Your task to perform on an android device: turn off smart reply in the gmail app Image 0: 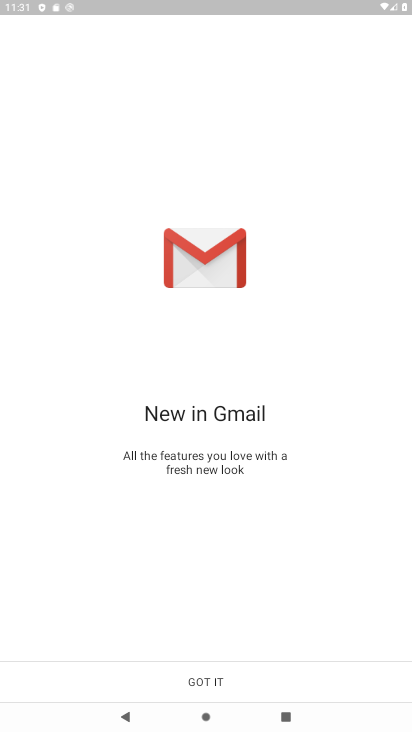
Step 0: click (210, 672)
Your task to perform on an android device: turn off smart reply in the gmail app Image 1: 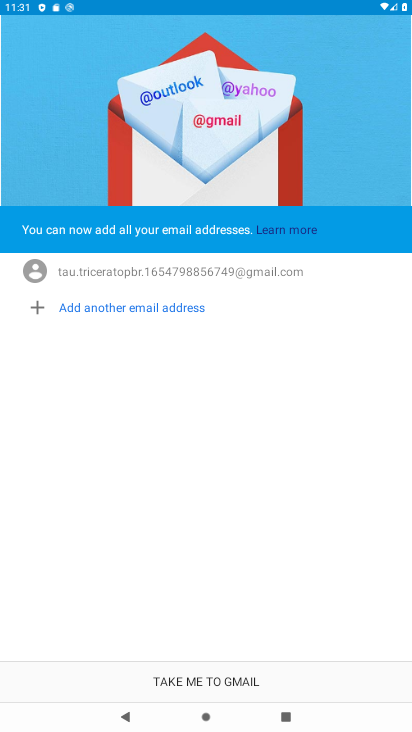
Step 1: click (210, 670)
Your task to perform on an android device: turn off smart reply in the gmail app Image 2: 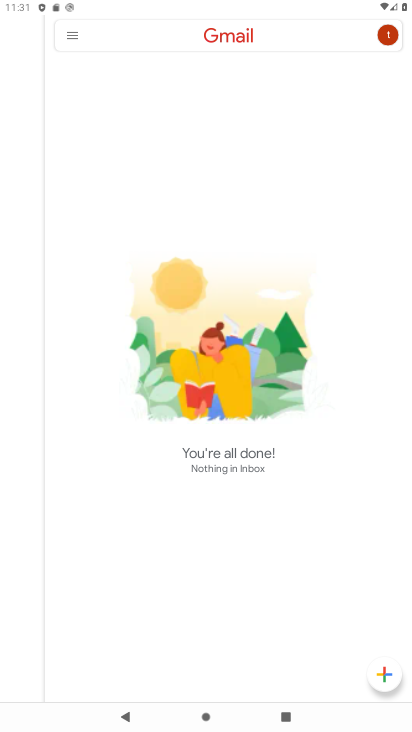
Step 2: click (64, 34)
Your task to perform on an android device: turn off smart reply in the gmail app Image 3: 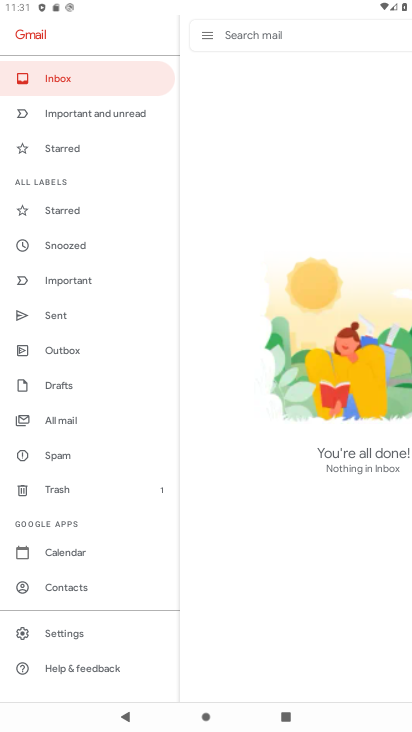
Step 3: click (56, 638)
Your task to perform on an android device: turn off smart reply in the gmail app Image 4: 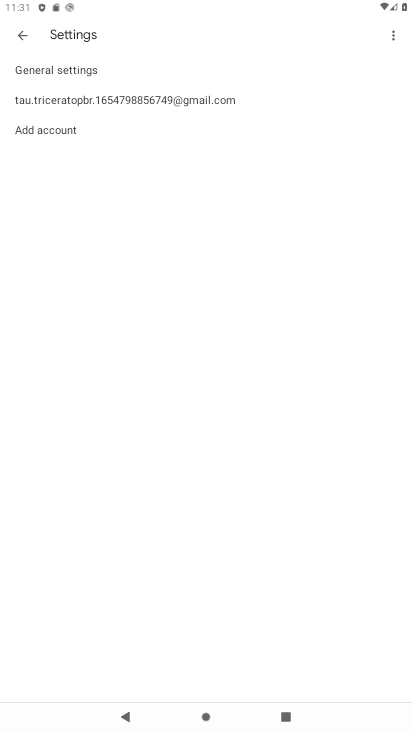
Step 4: click (186, 106)
Your task to perform on an android device: turn off smart reply in the gmail app Image 5: 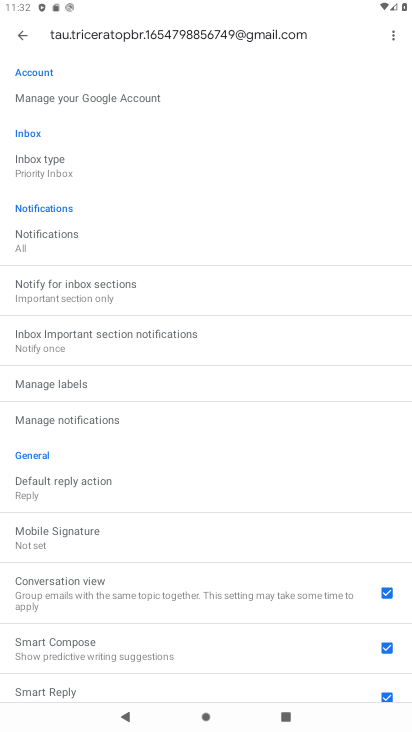
Step 5: click (387, 694)
Your task to perform on an android device: turn off smart reply in the gmail app Image 6: 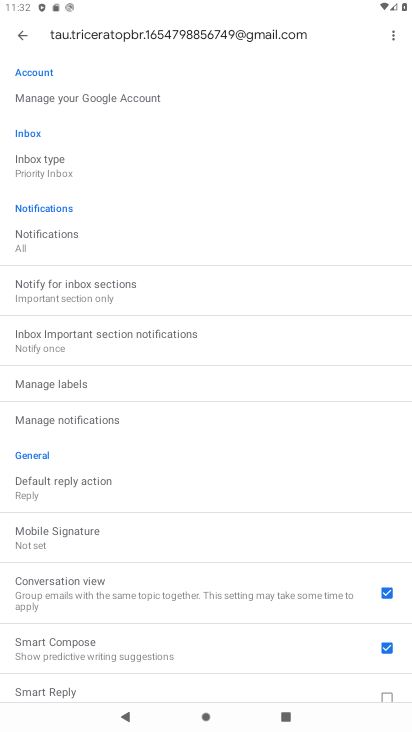
Step 6: task complete